Your task to perform on an android device: turn off location history Image 0: 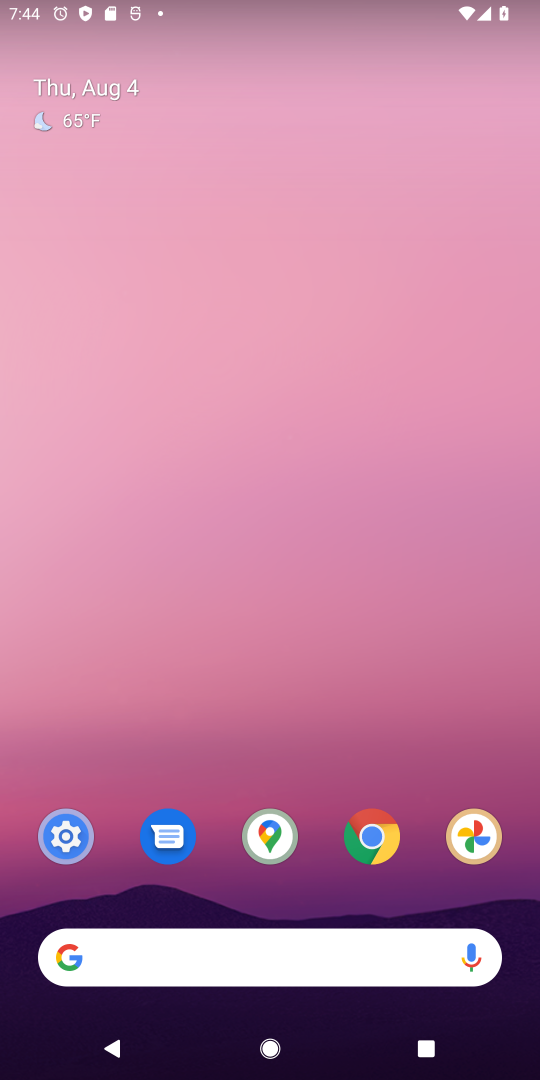
Step 0: click (64, 839)
Your task to perform on an android device: turn off location history Image 1: 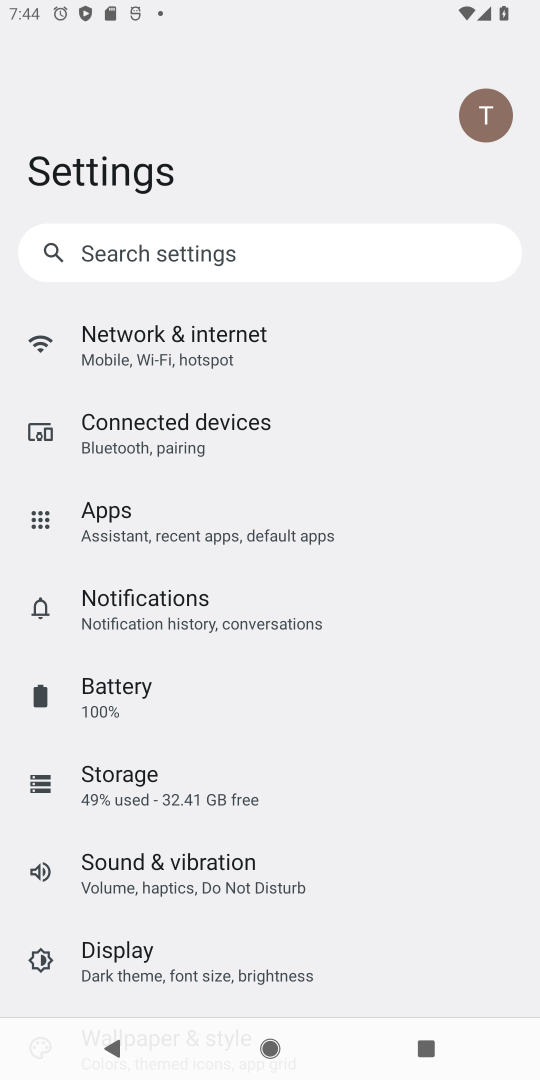
Step 1: drag from (197, 925) to (320, 204)
Your task to perform on an android device: turn off location history Image 2: 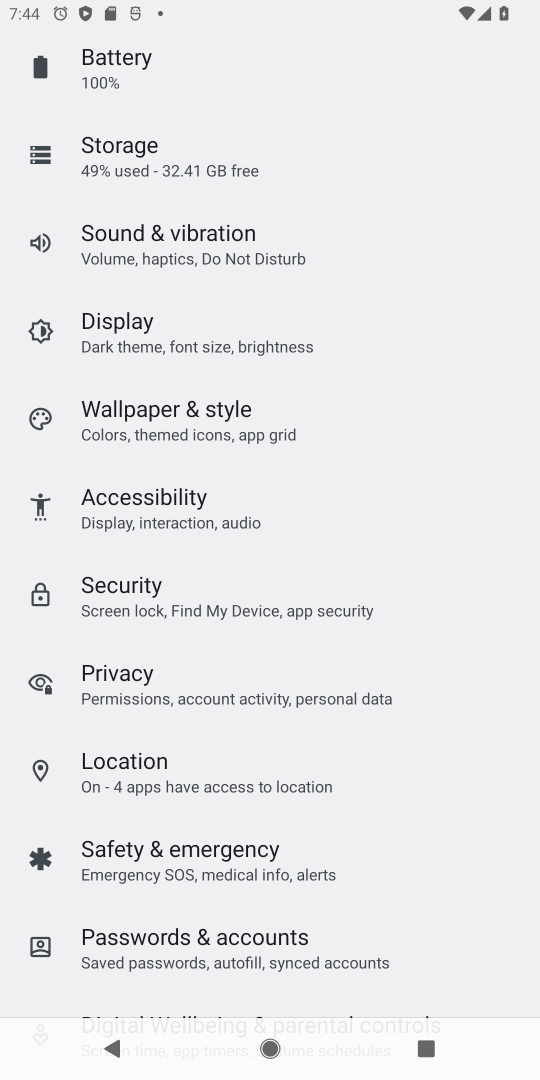
Step 2: click (160, 771)
Your task to perform on an android device: turn off location history Image 3: 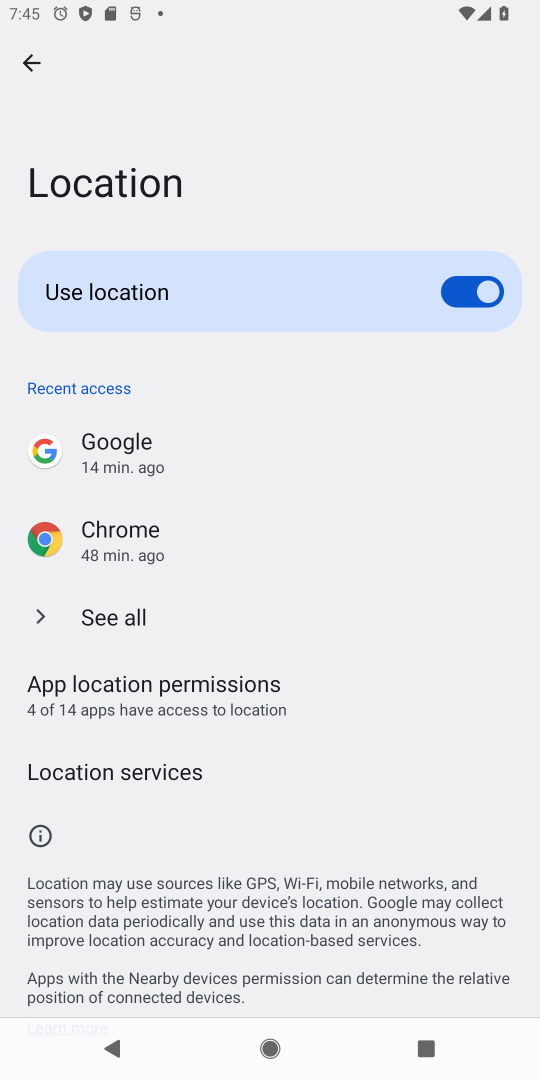
Step 3: click (171, 767)
Your task to perform on an android device: turn off location history Image 4: 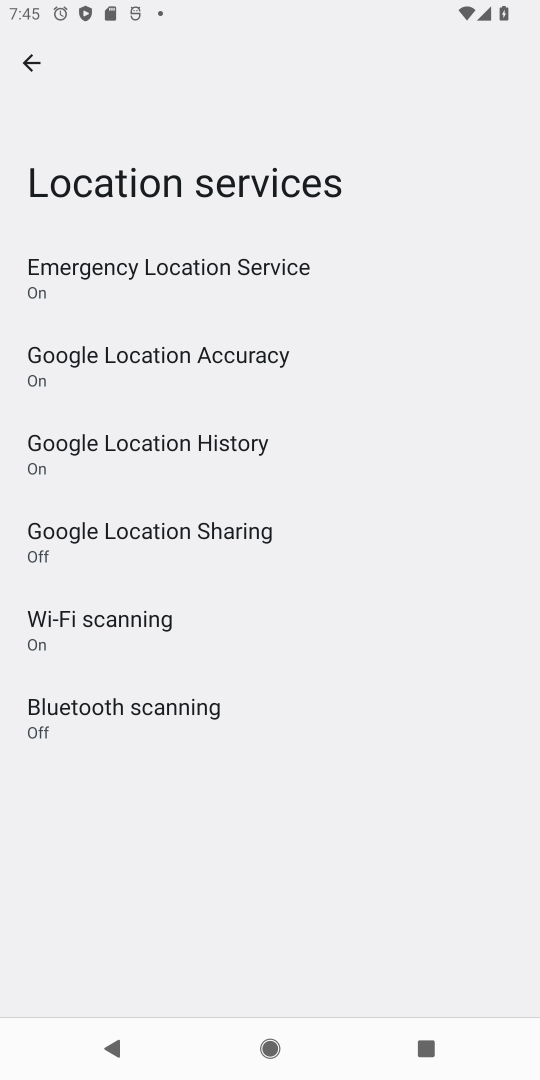
Step 4: click (203, 439)
Your task to perform on an android device: turn off location history Image 5: 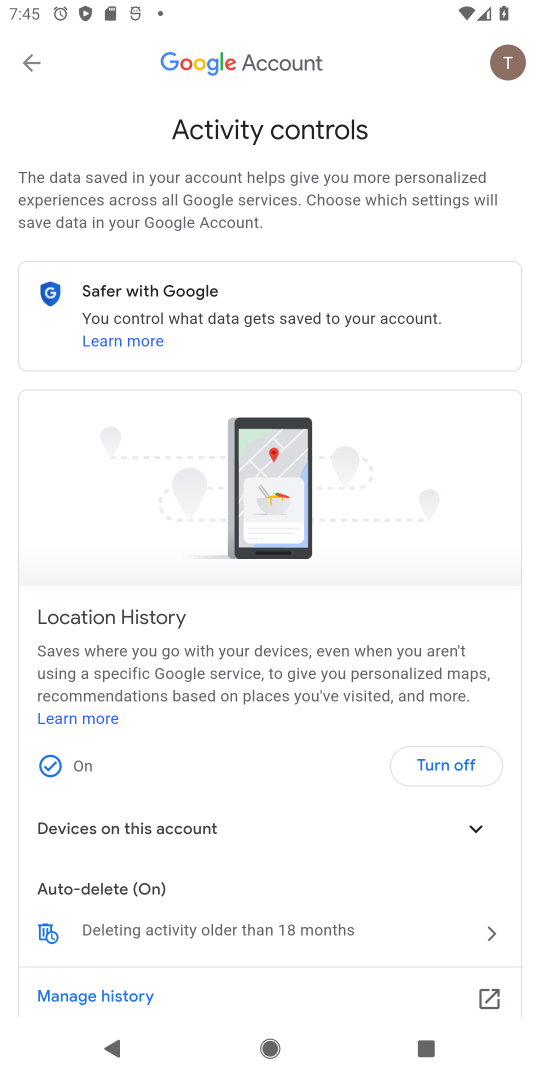
Step 5: click (427, 758)
Your task to perform on an android device: turn off location history Image 6: 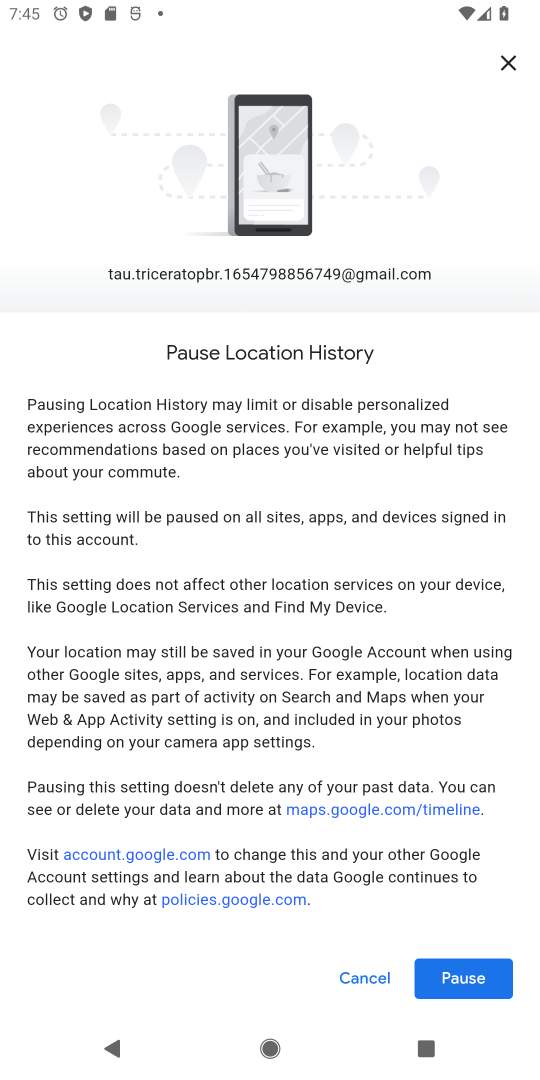
Step 6: click (453, 990)
Your task to perform on an android device: turn off location history Image 7: 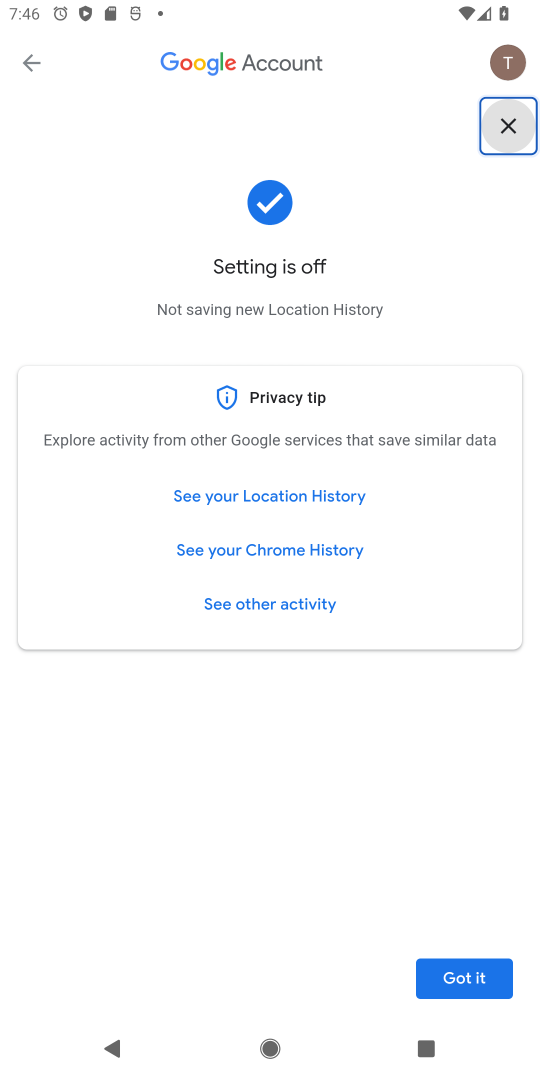
Step 7: click (453, 990)
Your task to perform on an android device: turn off location history Image 8: 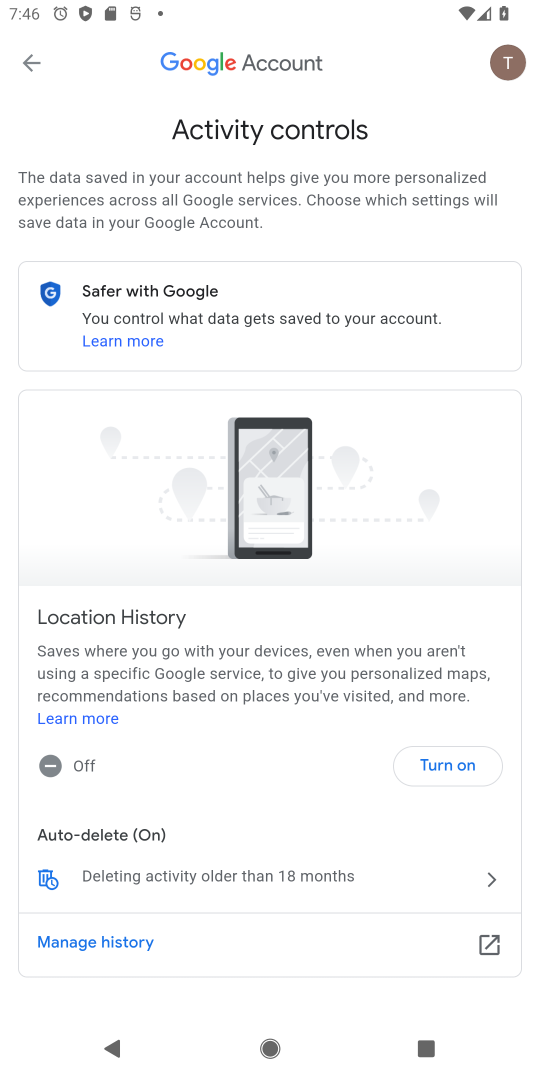
Step 8: task complete